Your task to perform on an android device: turn on sleep mode Image 0: 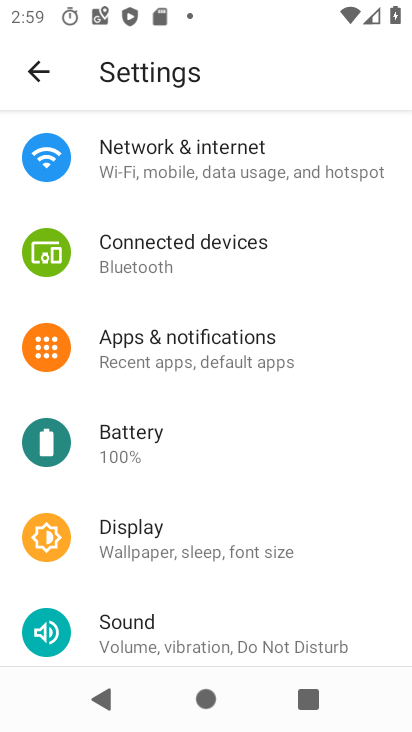
Step 0: click (173, 536)
Your task to perform on an android device: turn on sleep mode Image 1: 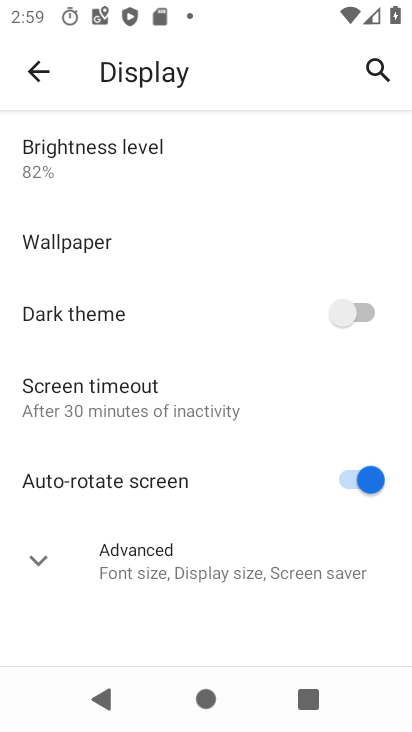
Step 1: click (173, 551)
Your task to perform on an android device: turn on sleep mode Image 2: 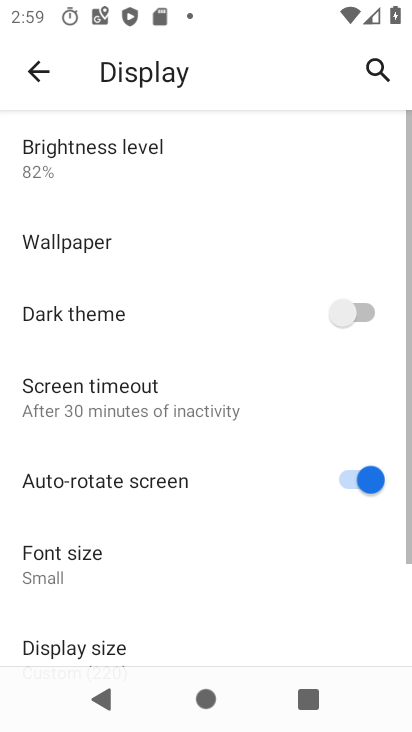
Step 2: task complete